Your task to perform on an android device: check battery use Image 0: 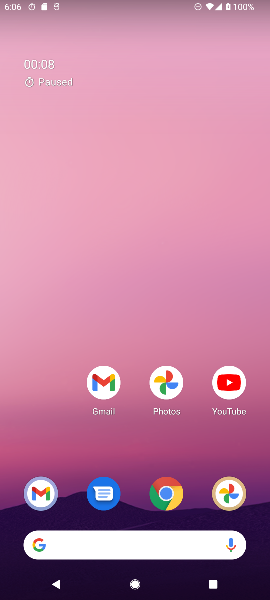
Step 0: drag from (176, 578) to (187, 324)
Your task to perform on an android device: check battery use Image 1: 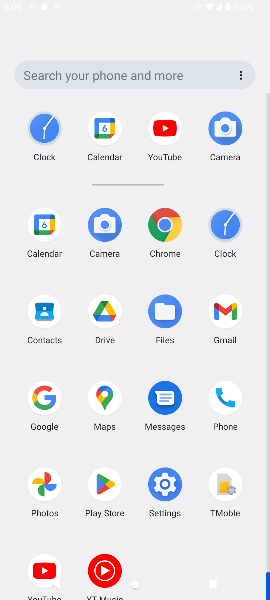
Step 1: drag from (124, 279) to (93, 157)
Your task to perform on an android device: check battery use Image 2: 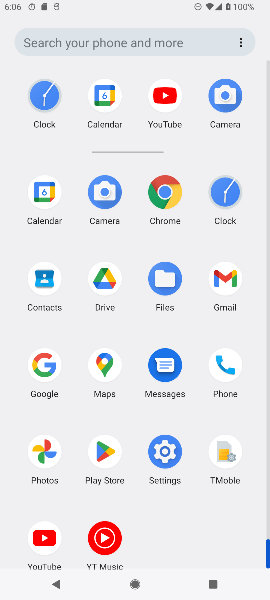
Step 2: drag from (131, 410) to (104, 205)
Your task to perform on an android device: check battery use Image 3: 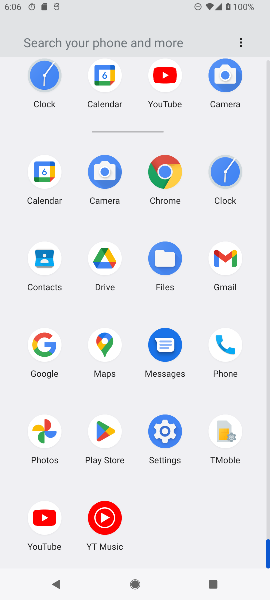
Step 3: click (162, 453)
Your task to perform on an android device: check battery use Image 4: 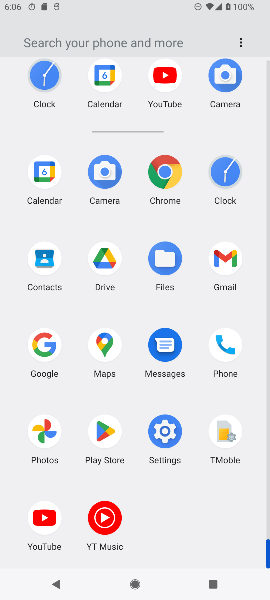
Step 4: click (162, 453)
Your task to perform on an android device: check battery use Image 5: 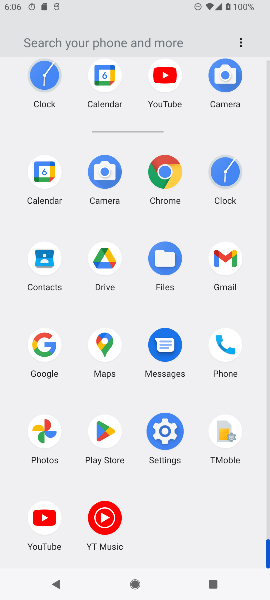
Step 5: click (160, 447)
Your task to perform on an android device: check battery use Image 6: 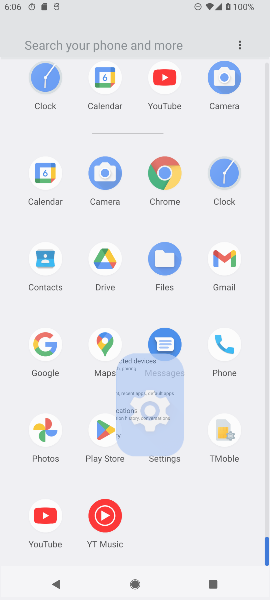
Step 6: click (160, 447)
Your task to perform on an android device: check battery use Image 7: 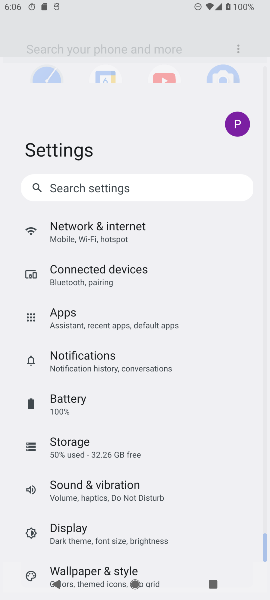
Step 7: click (160, 447)
Your task to perform on an android device: check battery use Image 8: 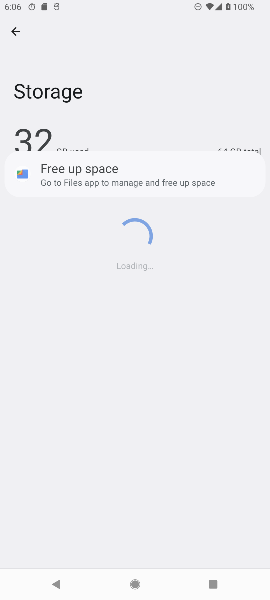
Step 8: click (61, 355)
Your task to perform on an android device: check battery use Image 9: 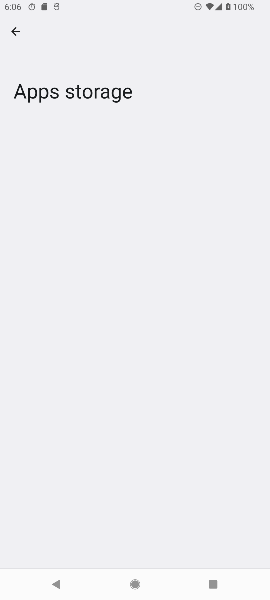
Step 9: click (20, 34)
Your task to perform on an android device: check battery use Image 10: 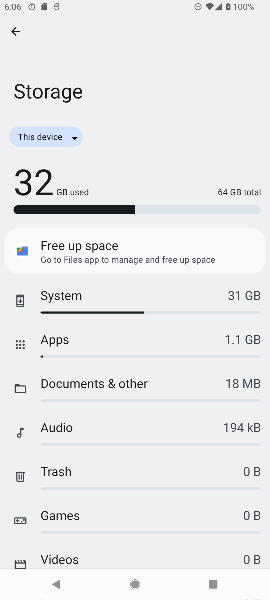
Step 10: click (10, 35)
Your task to perform on an android device: check battery use Image 11: 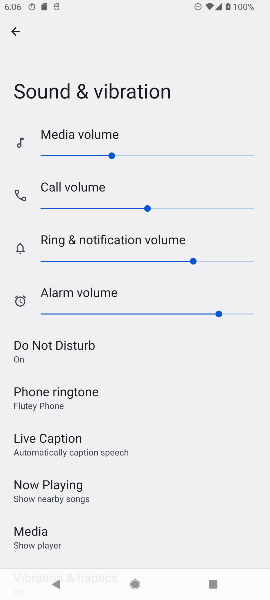
Step 11: click (14, 23)
Your task to perform on an android device: check battery use Image 12: 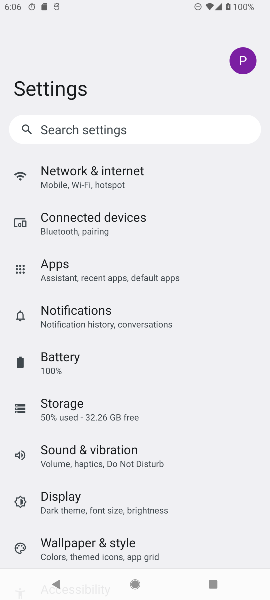
Step 12: click (51, 357)
Your task to perform on an android device: check battery use Image 13: 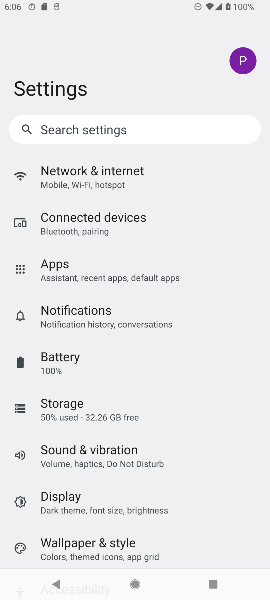
Step 13: click (51, 357)
Your task to perform on an android device: check battery use Image 14: 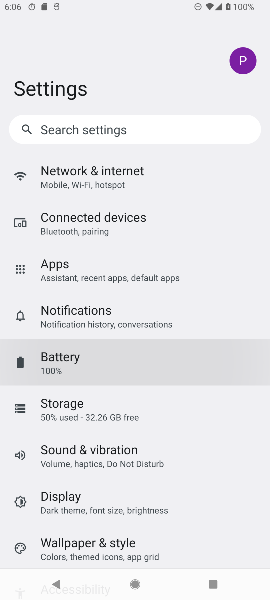
Step 14: click (51, 357)
Your task to perform on an android device: check battery use Image 15: 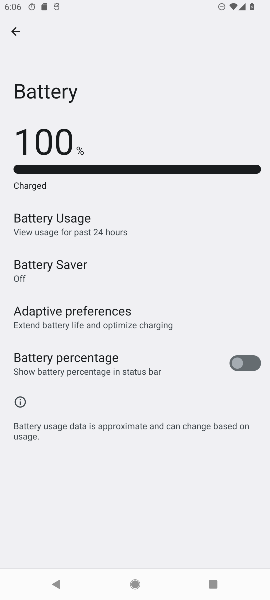
Step 15: task complete